Your task to perform on an android device: Open Maps and search for coffee Image 0: 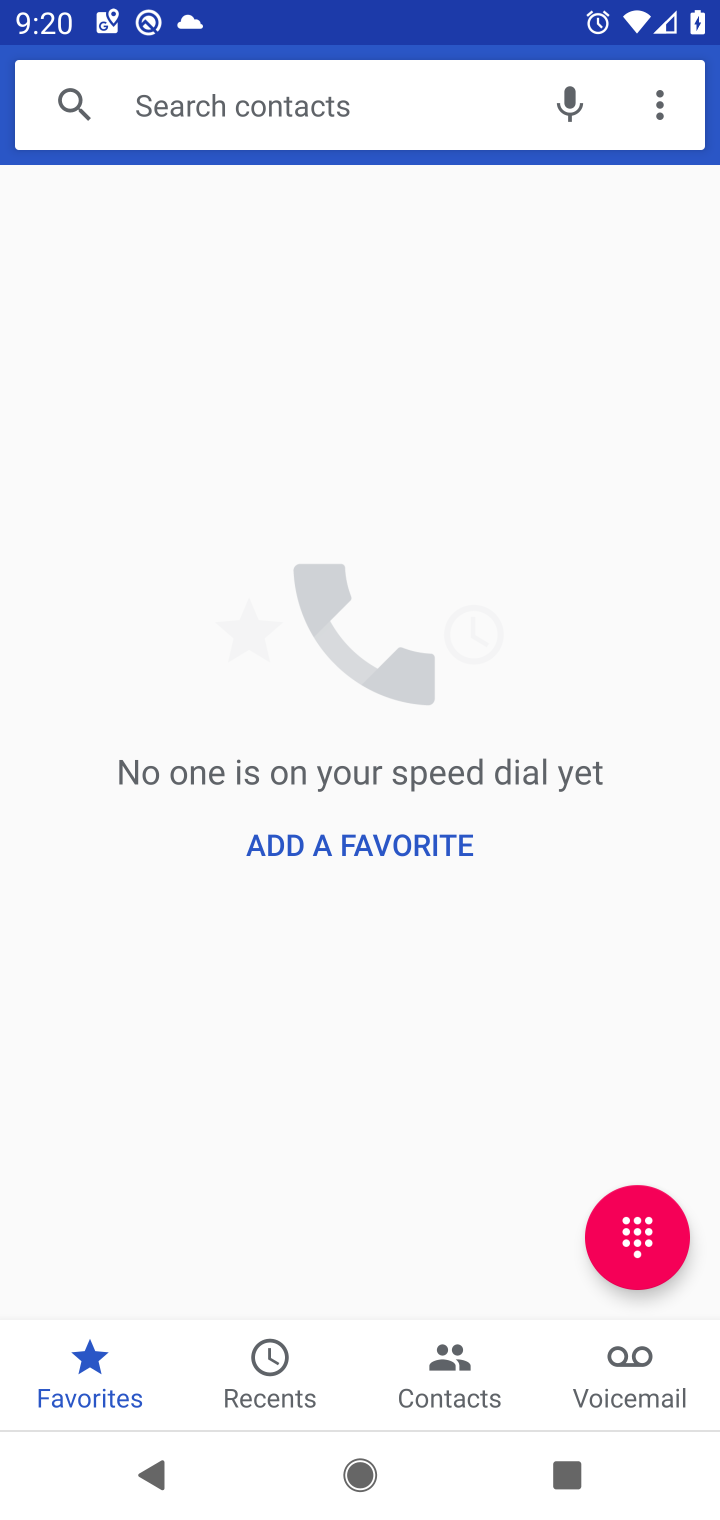
Step 0: drag from (170, 1262) to (720, 276)
Your task to perform on an android device: Open Maps and search for coffee Image 1: 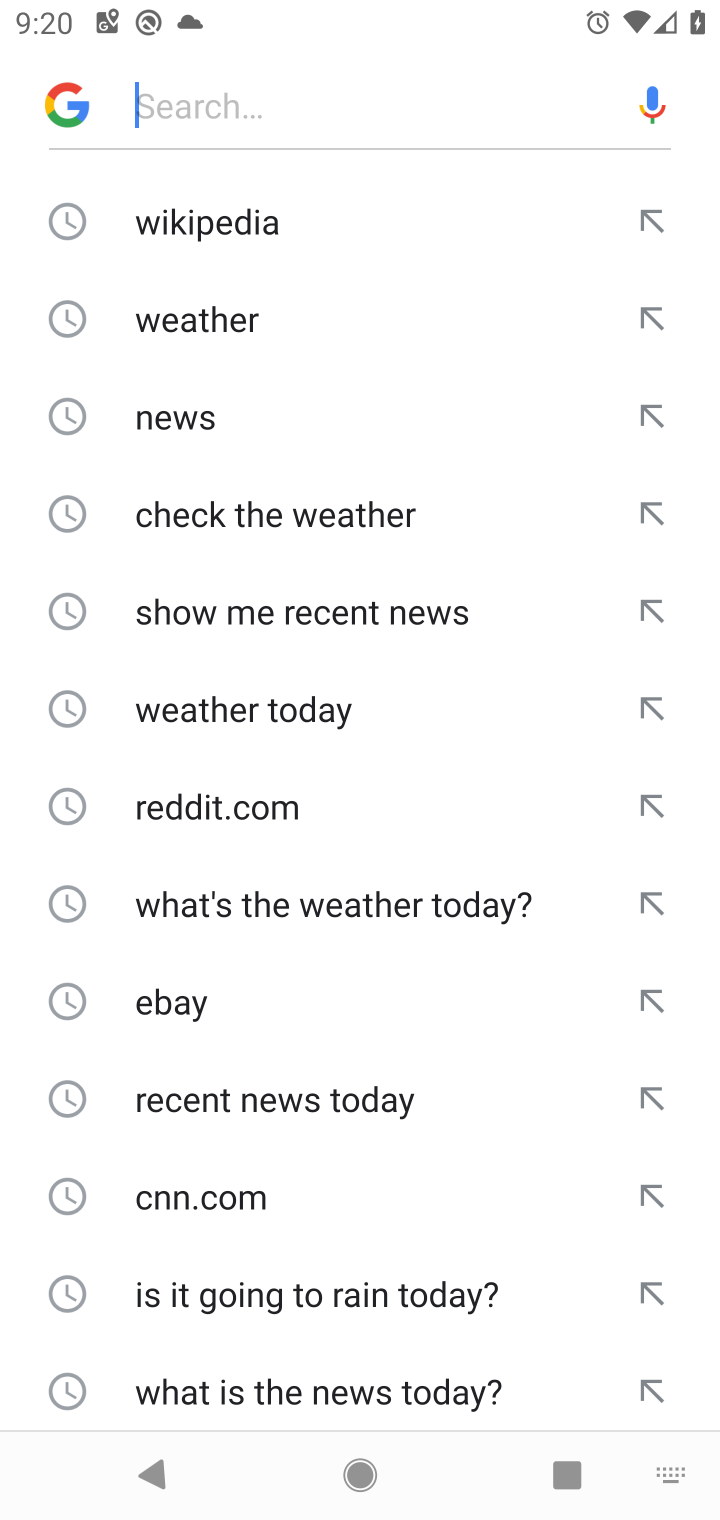
Step 1: task complete